Your task to perform on an android device: Search for a dining table on crateandbarrel.com Image 0: 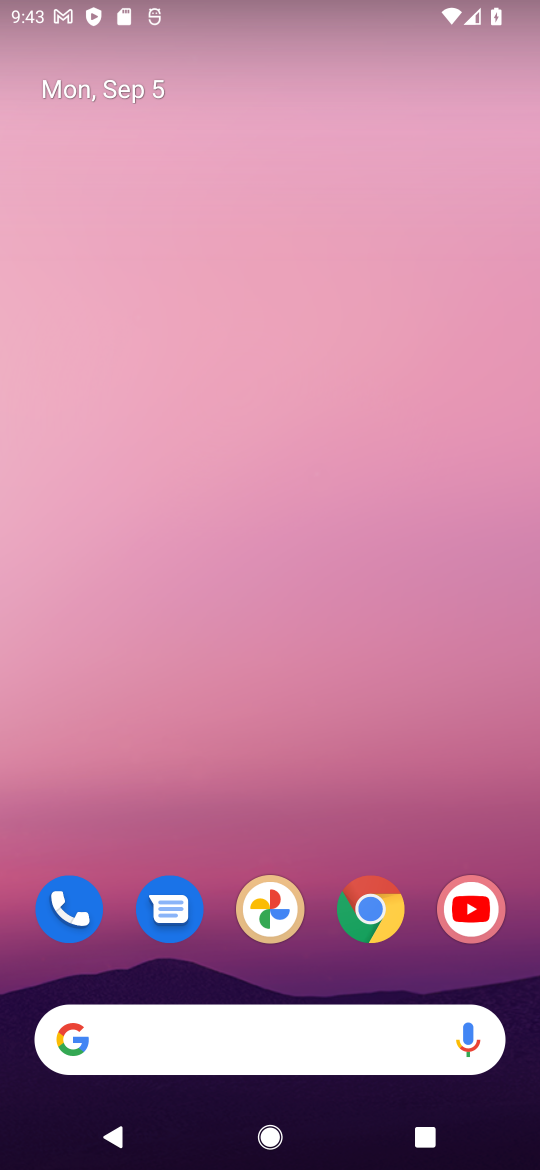
Step 0: click (389, 916)
Your task to perform on an android device: Search for a dining table on crateandbarrel.com Image 1: 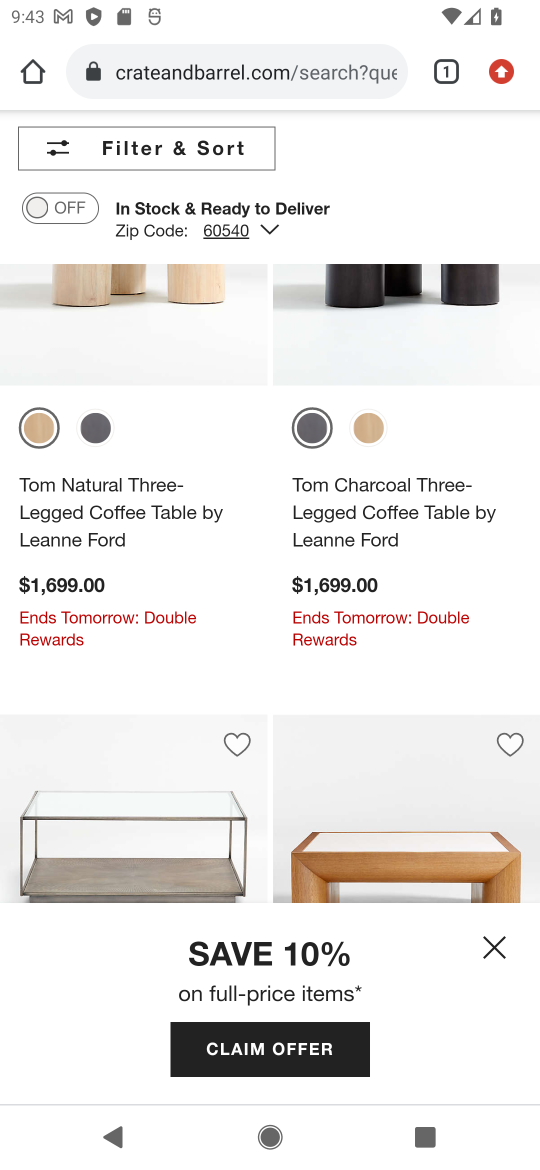
Step 1: drag from (375, 238) to (482, 1018)
Your task to perform on an android device: Search for a dining table on crateandbarrel.com Image 2: 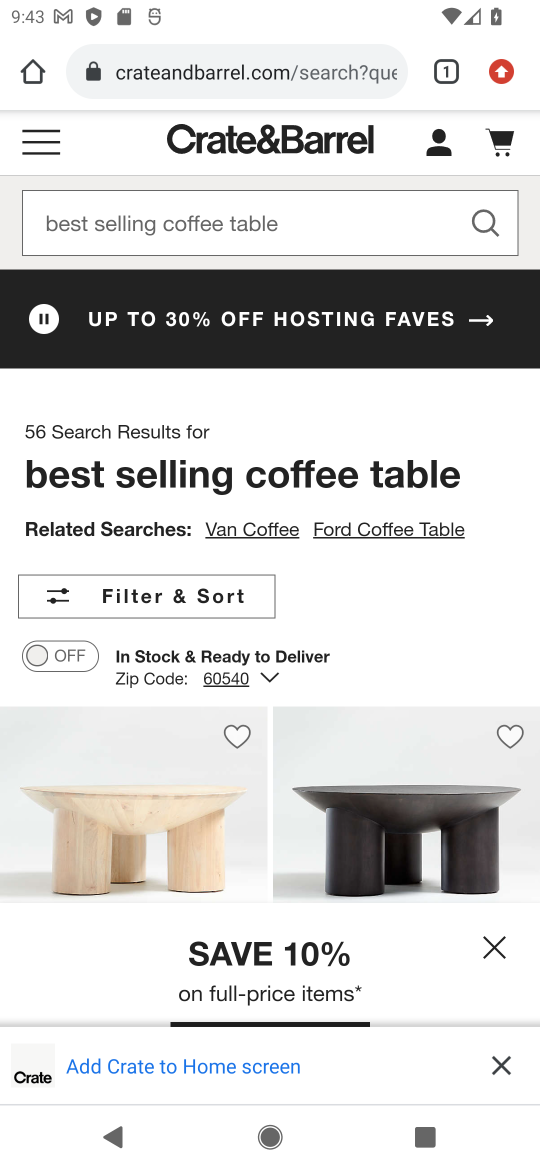
Step 2: click (377, 237)
Your task to perform on an android device: Search for a dining table on crateandbarrel.com Image 3: 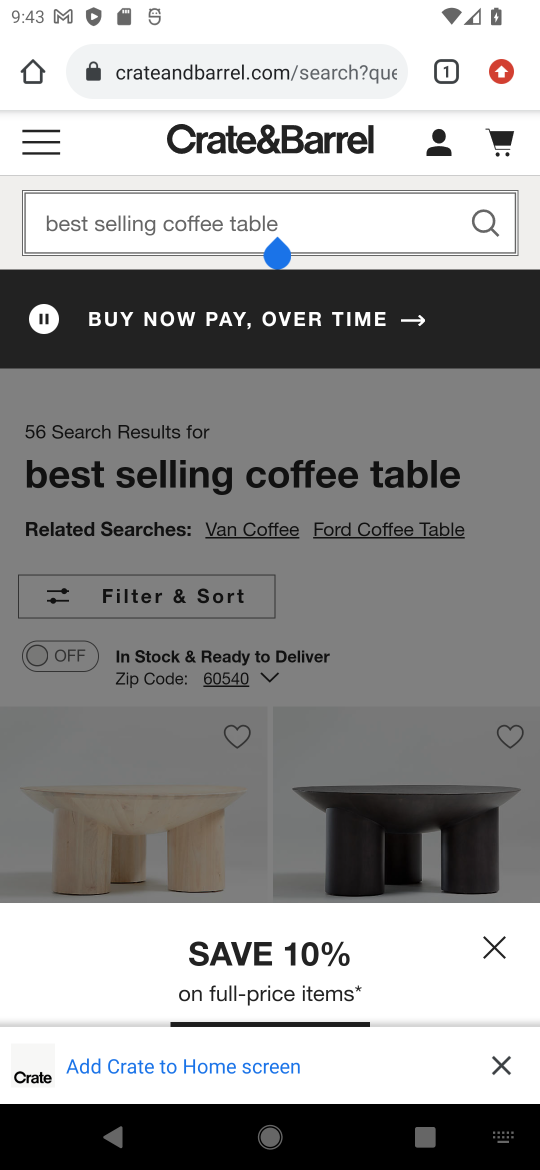
Step 3: click (230, 223)
Your task to perform on an android device: Search for a dining table on crateandbarrel.com Image 4: 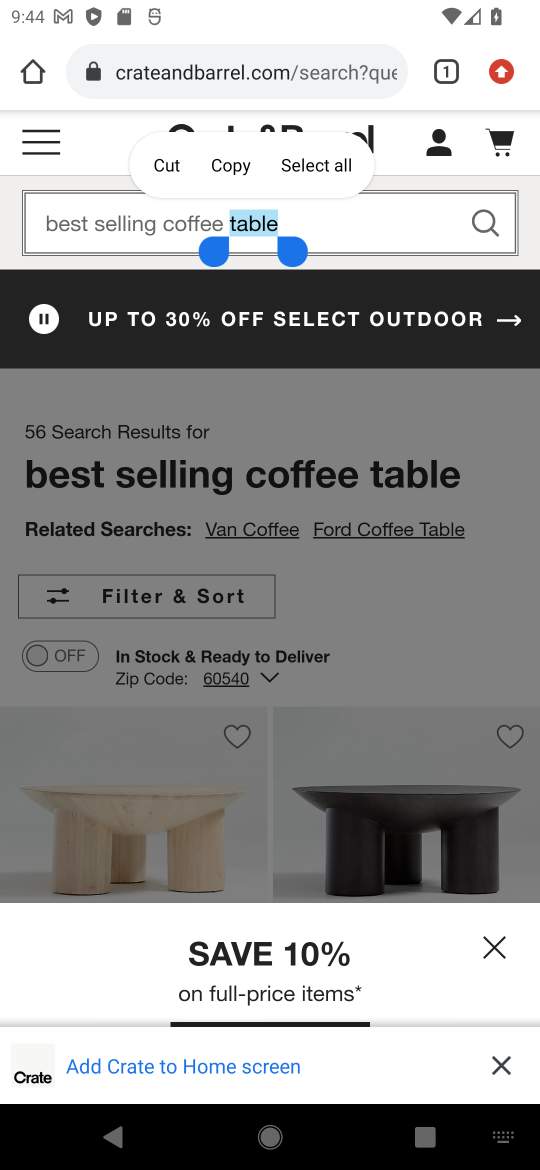
Step 4: click (308, 167)
Your task to perform on an android device: Search for a dining table on crateandbarrel.com Image 5: 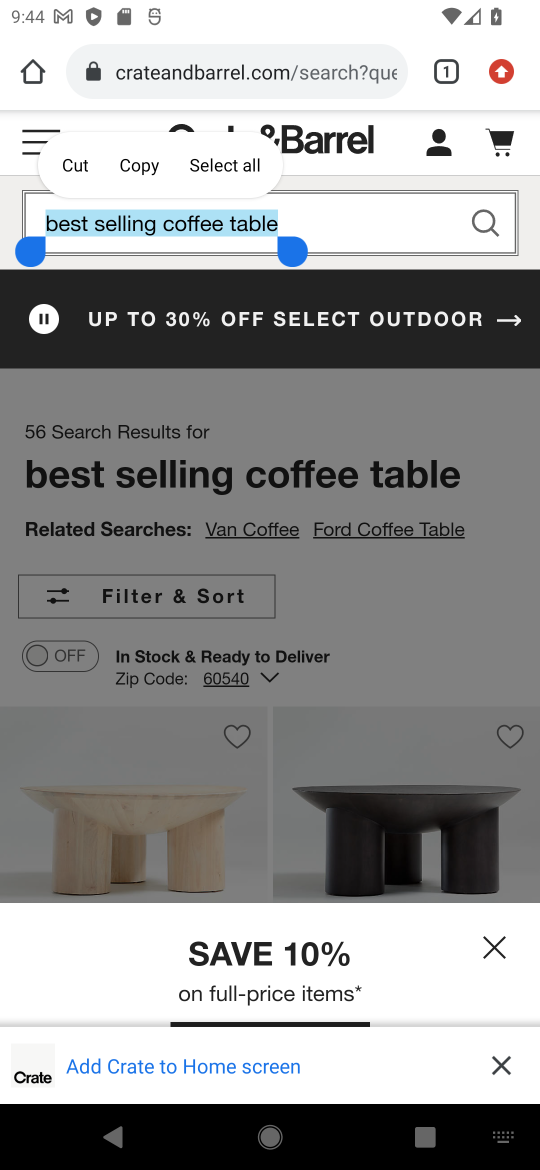
Step 5: click (76, 169)
Your task to perform on an android device: Search for a dining table on crateandbarrel.com Image 6: 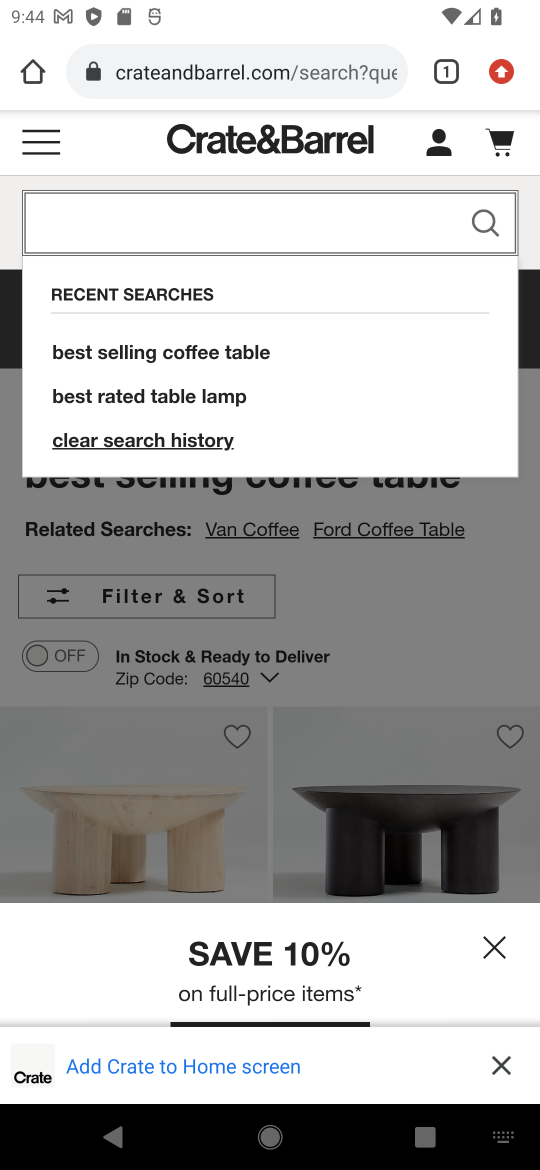
Step 6: type "dining table"
Your task to perform on an android device: Search for a dining table on crateandbarrel.com Image 7: 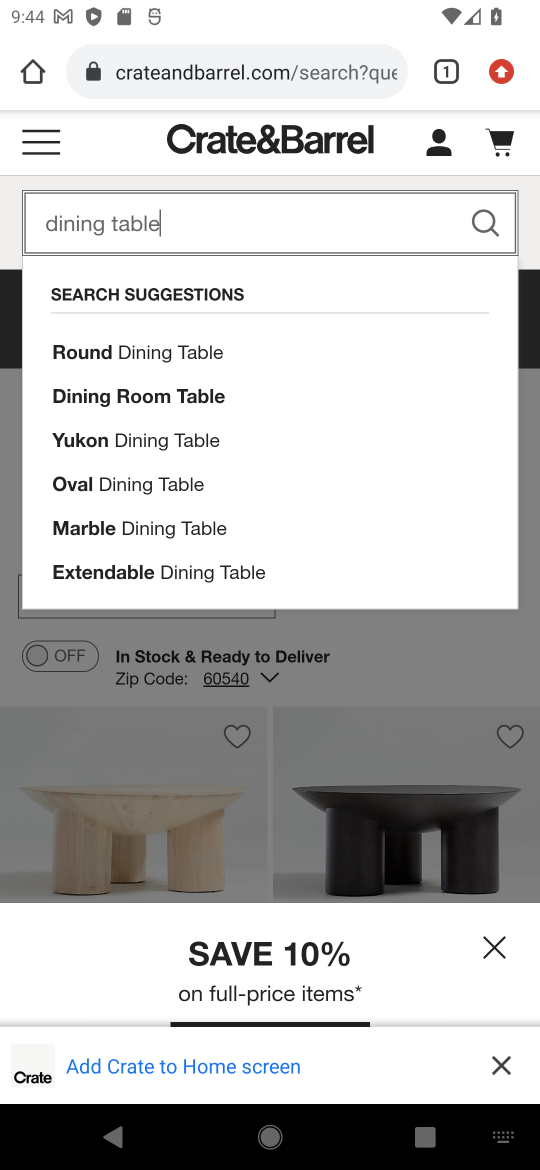
Step 7: click (483, 231)
Your task to perform on an android device: Search for a dining table on crateandbarrel.com Image 8: 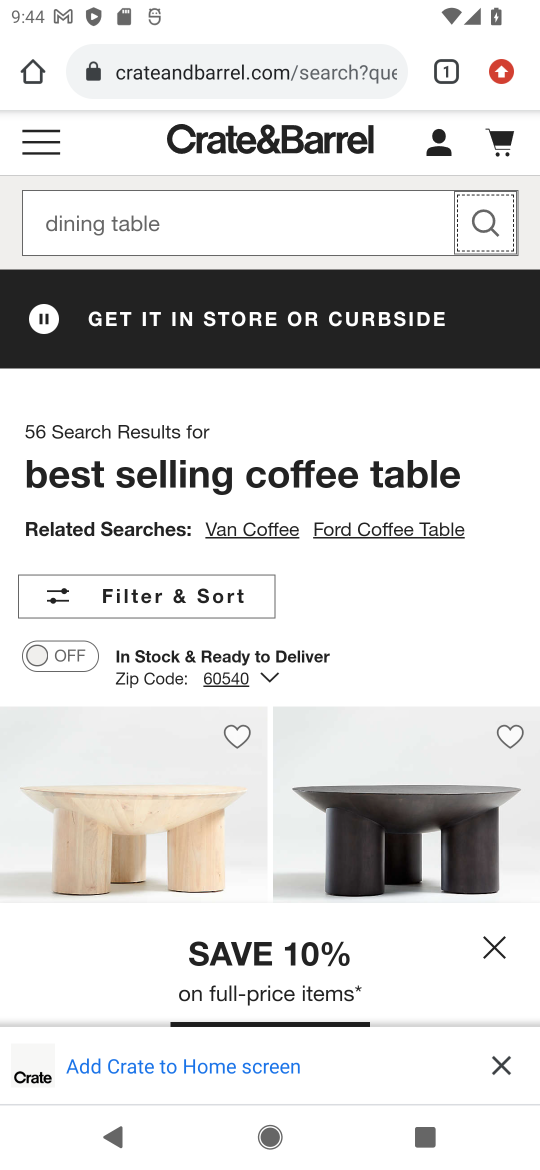
Step 8: click (473, 224)
Your task to perform on an android device: Search for a dining table on crateandbarrel.com Image 9: 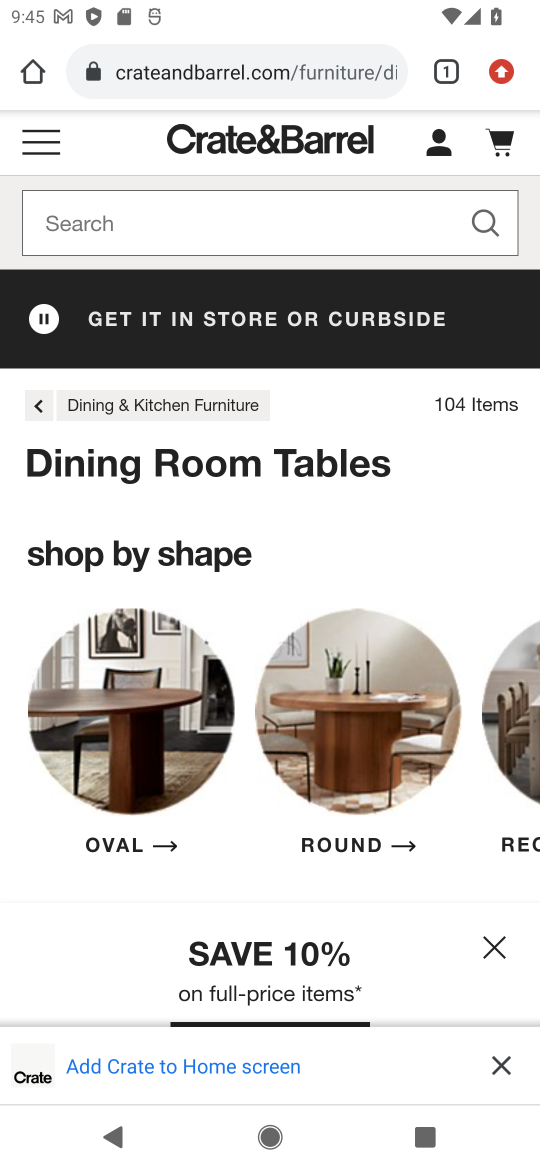
Step 9: task complete